Your task to perform on an android device: Show me popular videos on Youtube Image 0: 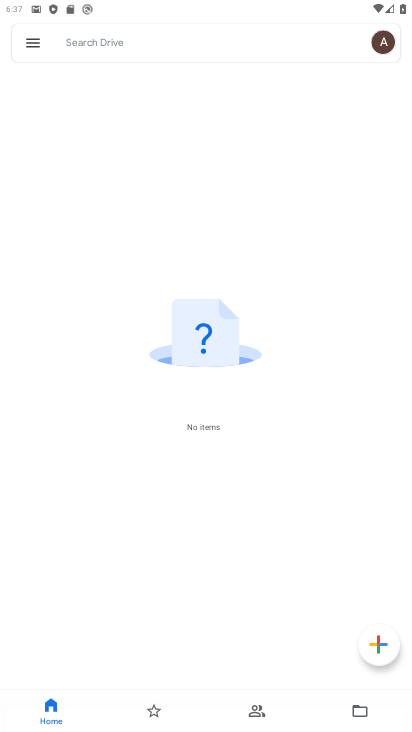
Step 0: press home button
Your task to perform on an android device: Show me popular videos on Youtube Image 1: 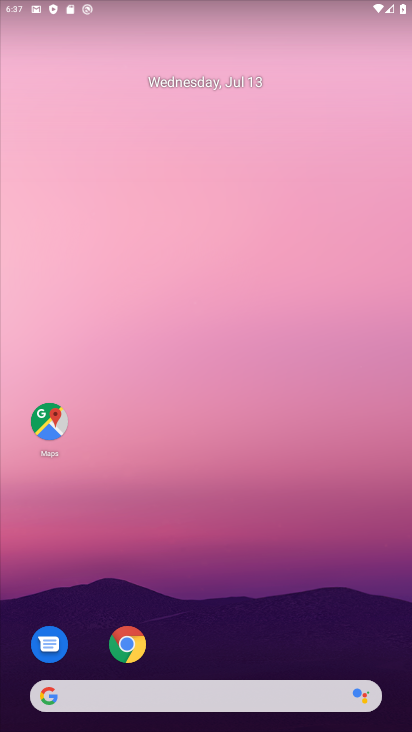
Step 1: drag from (254, 593) to (226, 266)
Your task to perform on an android device: Show me popular videos on Youtube Image 2: 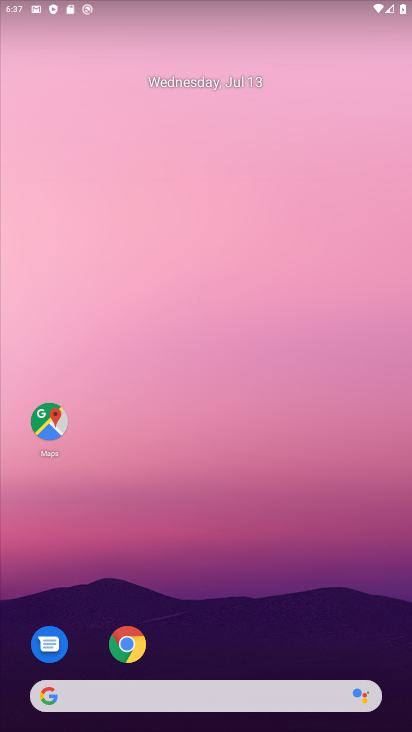
Step 2: drag from (198, 554) to (156, 2)
Your task to perform on an android device: Show me popular videos on Youtube Image 3: 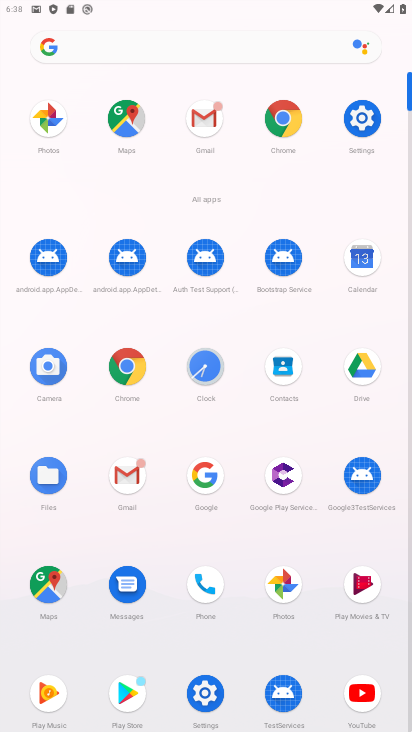
Step 3: click (371, 691)
Your task to perform on an android device: Show me popular videos on Youtube Image 4: 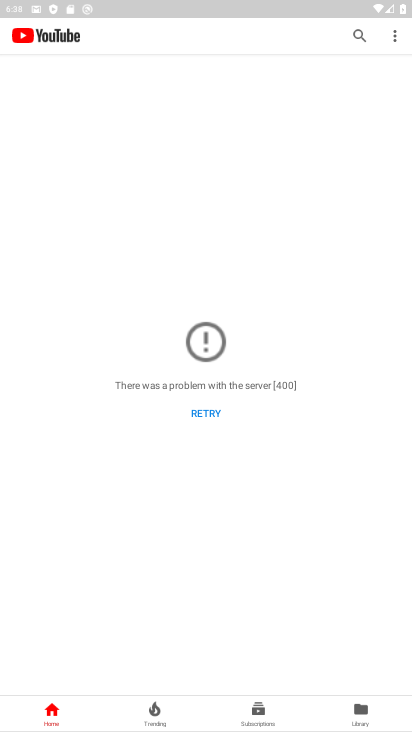
Step 4: click (153, 709)
Your task to perform on an android device: Show me popular videos on Youtube Image 5: 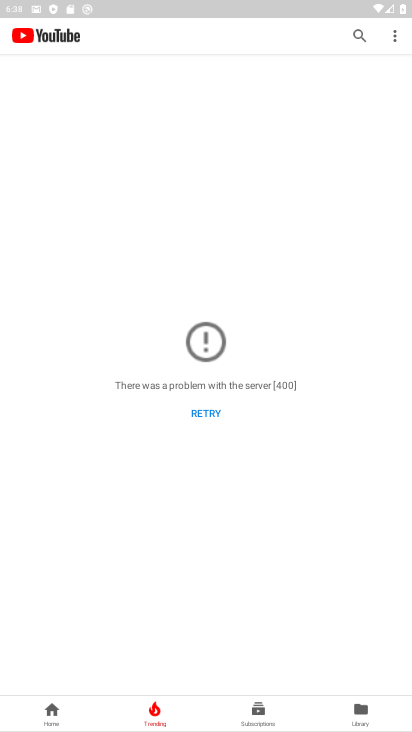
Step 5: click (200, 405)
Your task to perform on an android device: Show me popular videos on Youtube Image 6: 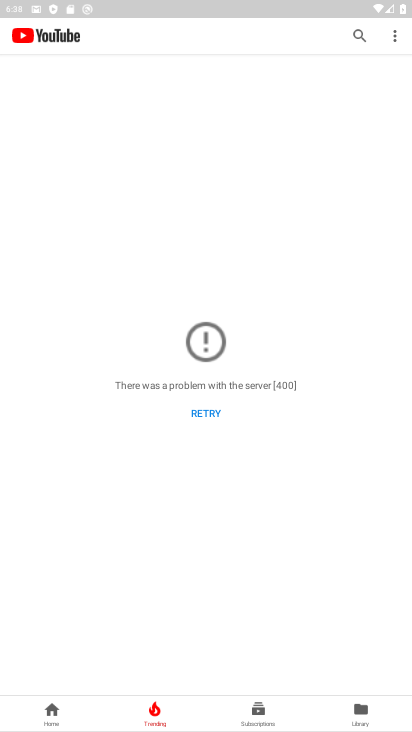
Step 6: task complete